Your task to perform on an android device: Go to Android settings Image 0: 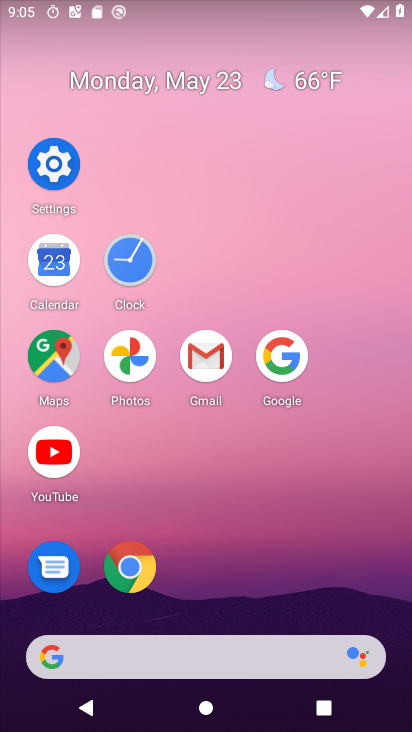
Step 0: click (72, 163)
Your task to perform on an android device: Go to Android settings Image 1: 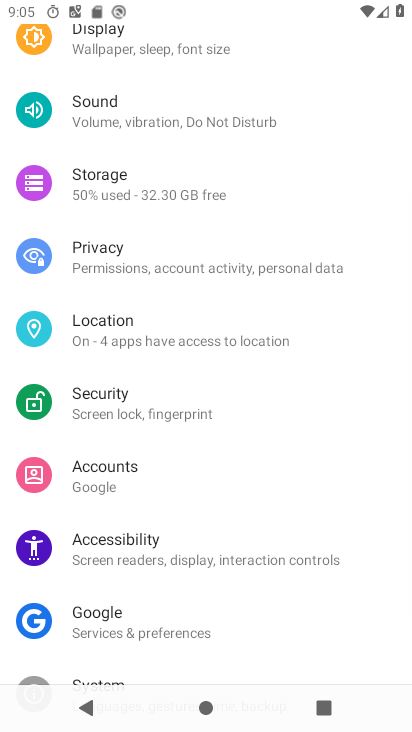
Step 1: task complete